Your task to perform on an android device: turn on showing notifications on the lock screen Image 0: 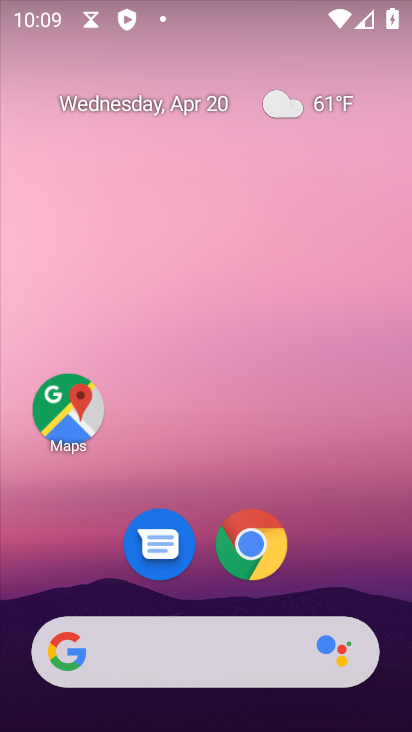
Step 0: drag from (201, 530) to (286, 110)
Your task to perform on an android device: turn on showing notifications on the lock screen Image 1: 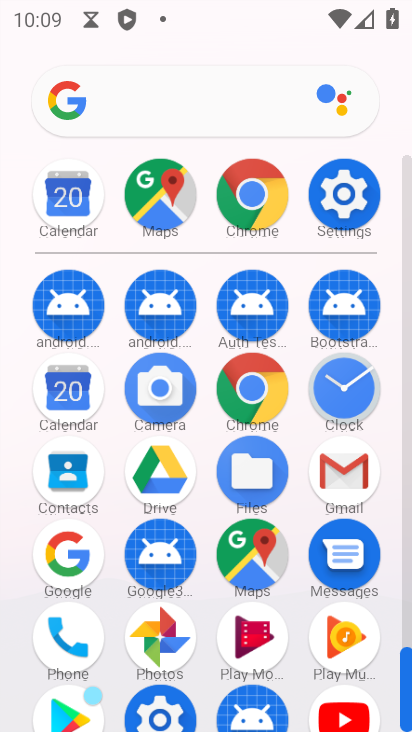
Step 1: click (335, 212)
Your task to perform on an android device: turn on showing notifications on the lock screen Image 2: 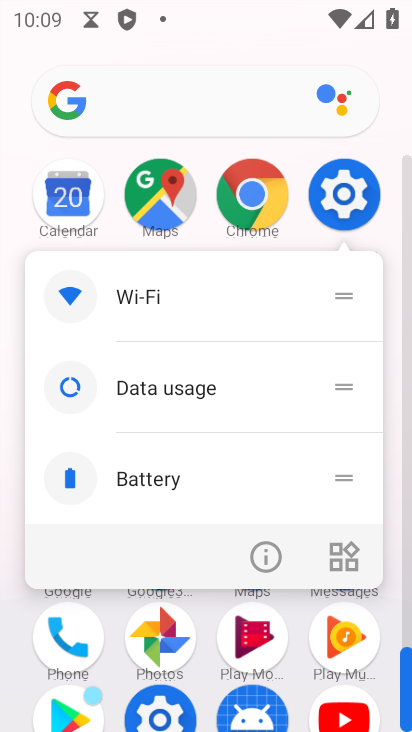
Step 2: click (343, 196)
Your task to perform on an android device: turn on showing notifications on the lock screen Image 3: 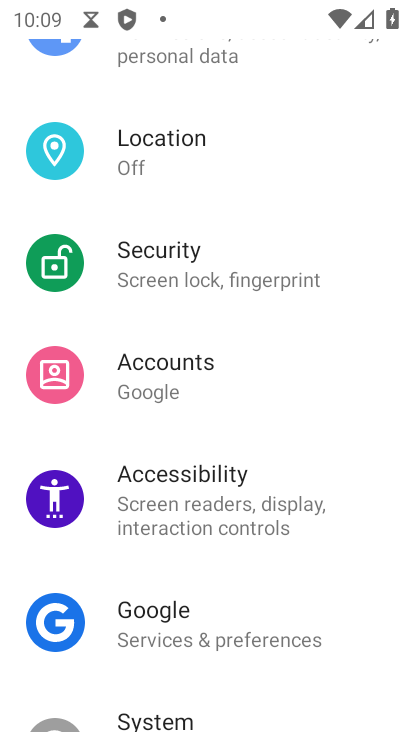
Step 3: drag from (264, 166) to (240, 600)
Your task to perform on an android device: turn on showing notifications on the lock screen Image 4: 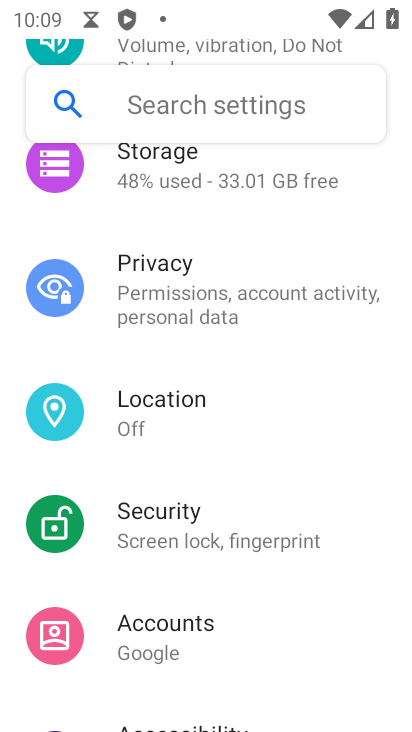
Step 4: drag from (252, 261) to (223, 598)
Your task to perform on an android device: turn on showing notifications on the lock screen Image 5: 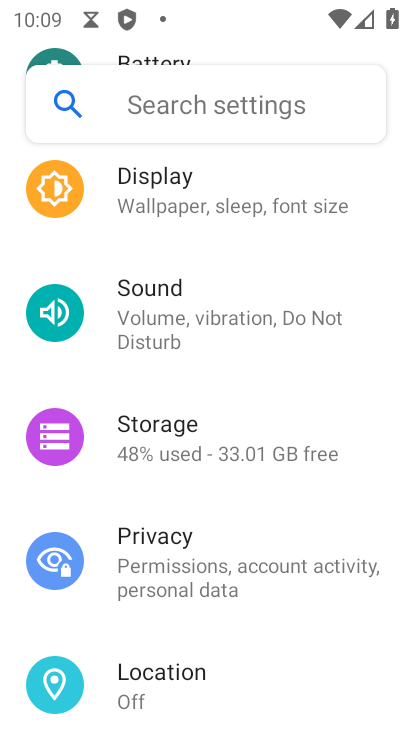
Step 5: drag from (280, 268) to (220, 668)
Your task to perform on an android device: turn on showing notifications on the lock screen Image 6: 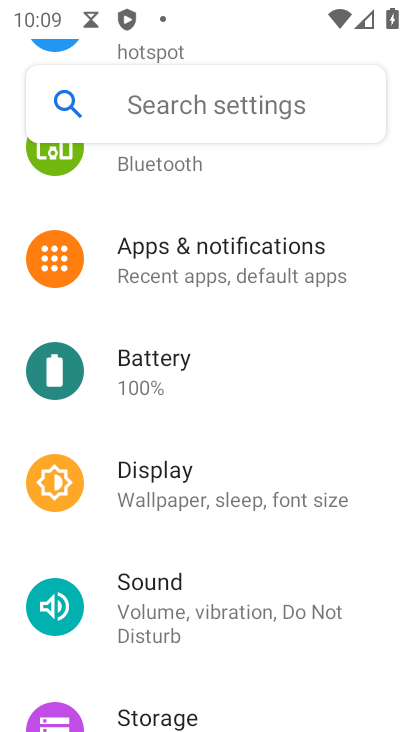
Step 6: click (244, 248)
Your task to perform on an android device: turn on showing notifications on the lock screen Image 7: 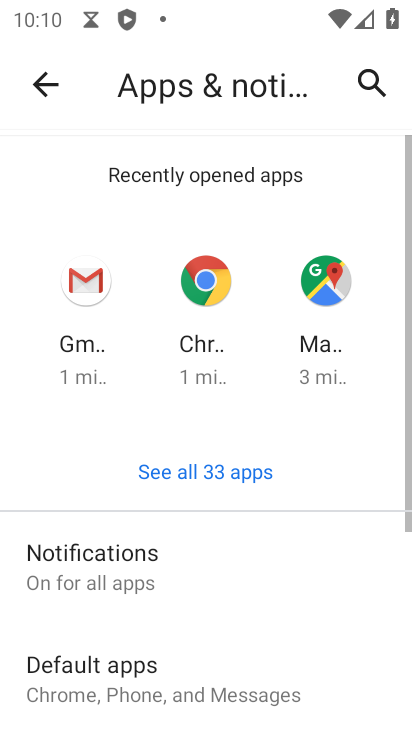
Step 7: click (85, 587)
Your task to perform on an android device: turn on showing notifications on the lock screen Image 8: 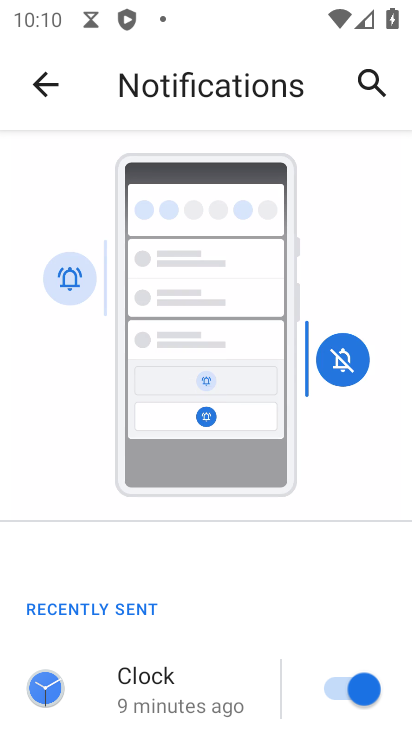
Step 8: drag from (222, 631) to (277, 280)
Your task to perform on an android device: turn on showing notifications on the lock screen Image 9: 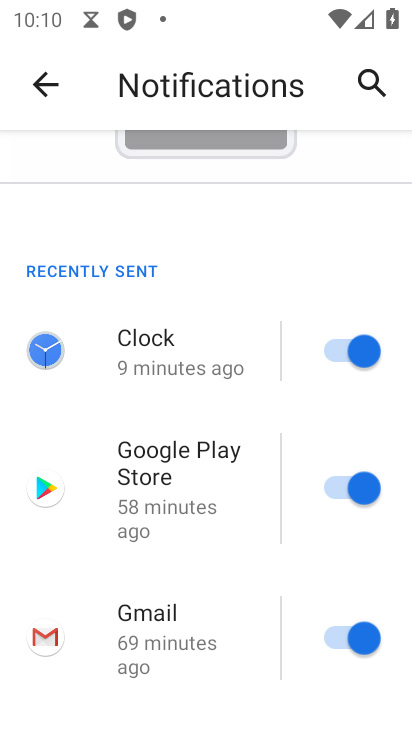
Step 9: drag from (196, 634) to (312, 162)
Your task to perform on an android device: turn on showing notifications on the lock screen Image 10: 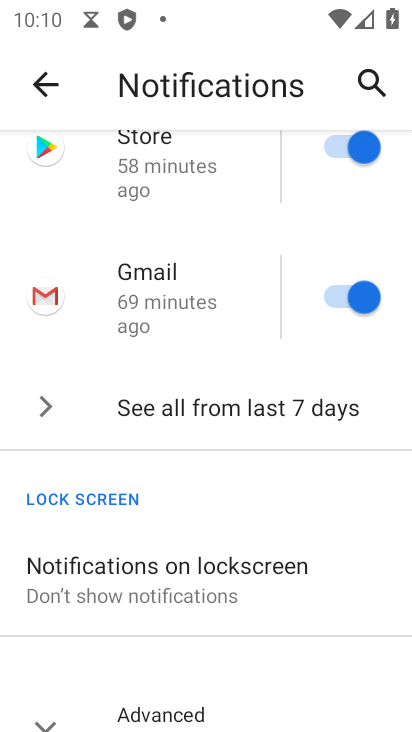
Step 10: click (157, 569)
Your task to perform on an android device: turn on showing notifications on the lock screen Image 11: 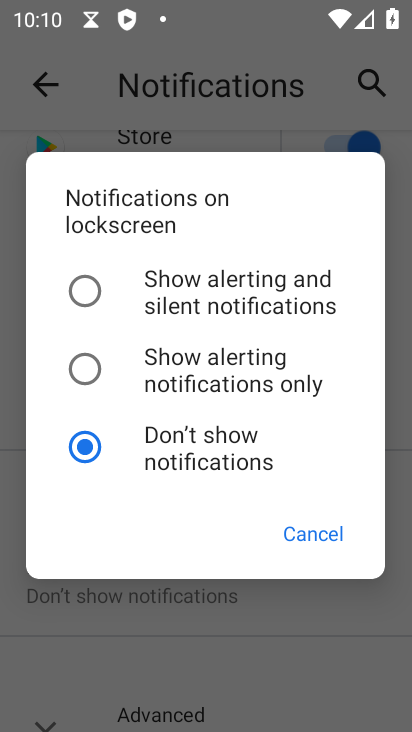
Step 11: click (84, 290)
Your task to perform on an android device: turn on showing notifications on the lock screen Image 12: 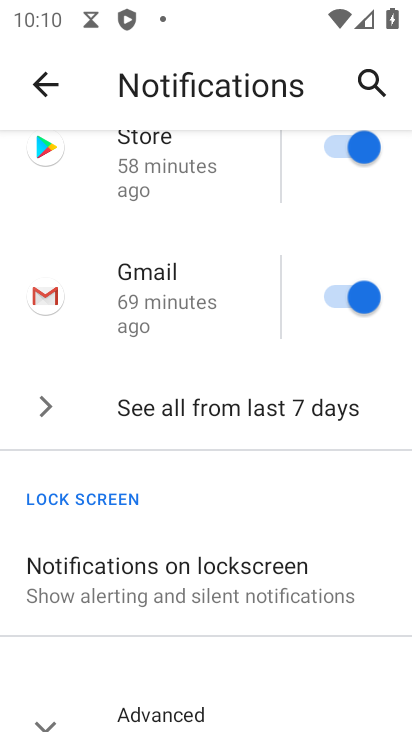
Step 12: task complete